Your task to perform on an android device: Open Chrome and go to the settings page Image 0: 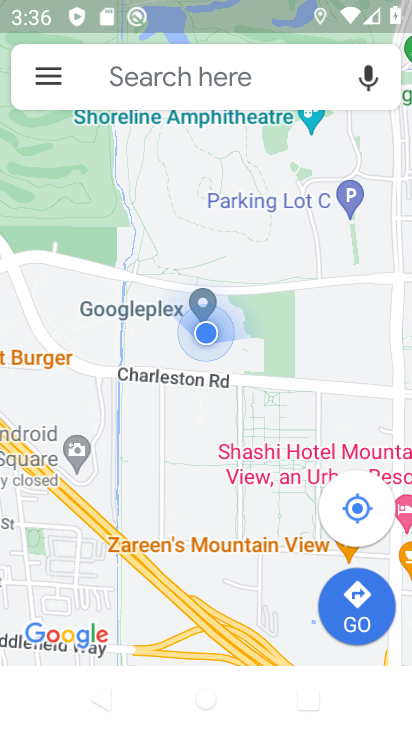
Step 0: press home button
Your task to perform on an android device: Open Chrome and go to the settings page Image 1: 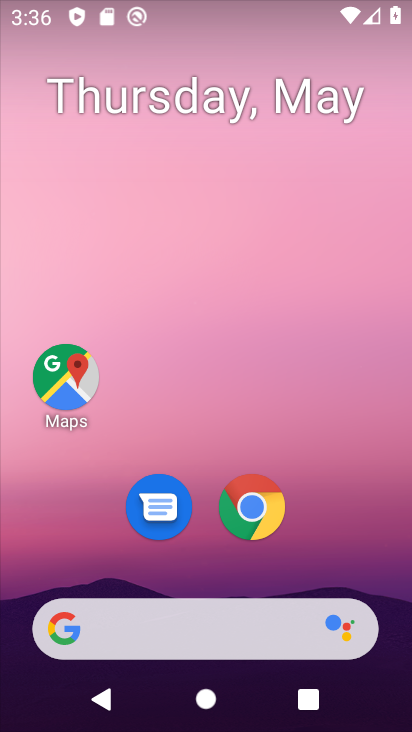
Step 1: click (250, 508)
Your task to perform on an android device: Open Chrome and go to the settings page Image 2: 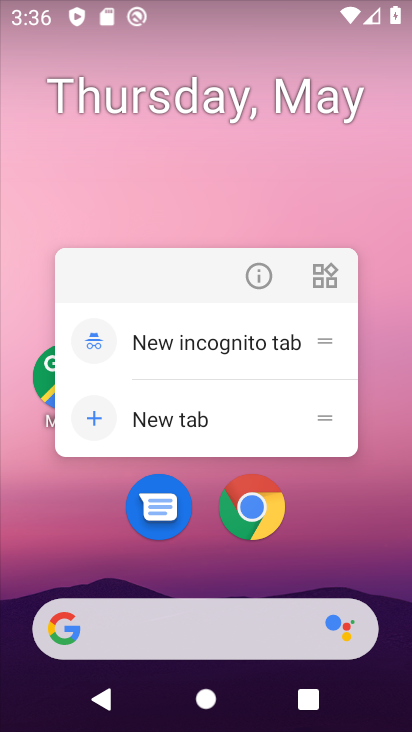
Step 2: click (249, 506)
Your task to perform on an android device: Open Chrome and go to the settings page Image 3: 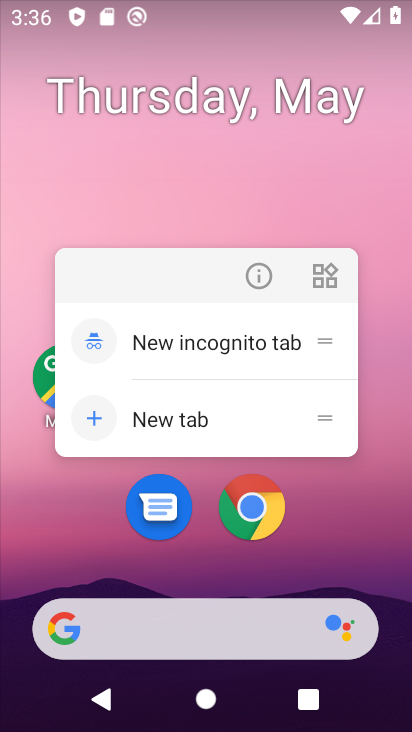
Step 3: click (249, 505)
Your task to perform on an android device: Open Chrome and go to the settings page Image 4: 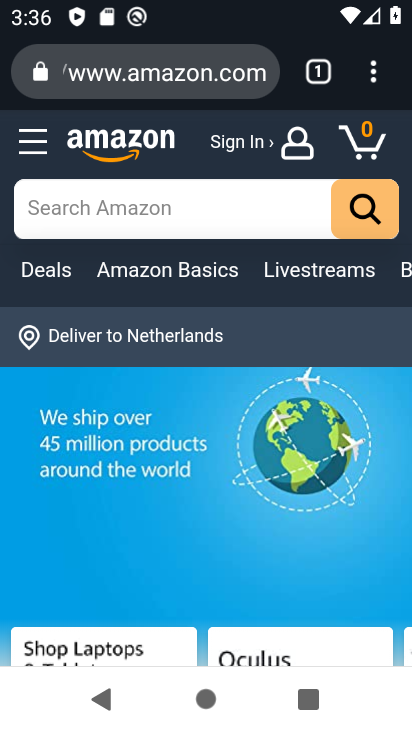
Step 4: click (380, 70)
Your task to perform on an android device: Open Chrome and go to the settings page Image 5: 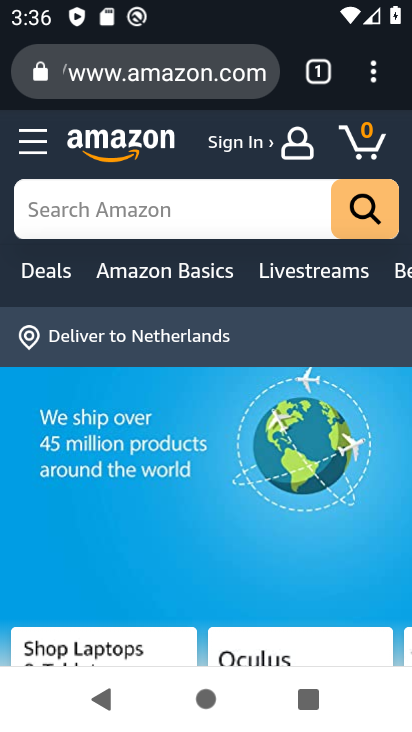
Step 5: click (378, 74)
Your task to perform on an android device: Open Chrome and go to the settings page Image 6: 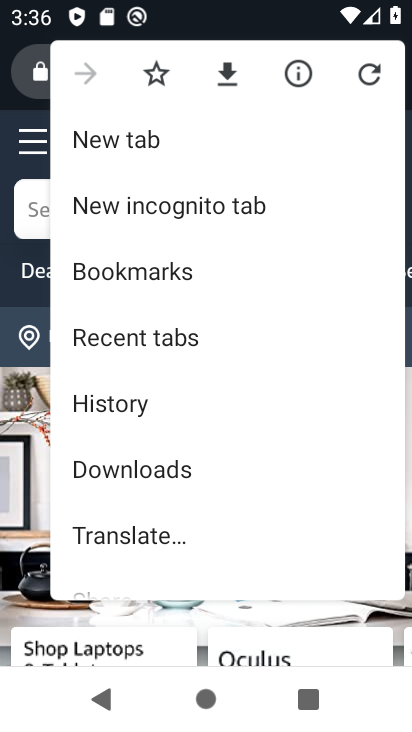
Step 6: drag from (181, 522) to (180, 245)
Your task to perform on an android device: Open Chrome and go to the settings page Image 7: 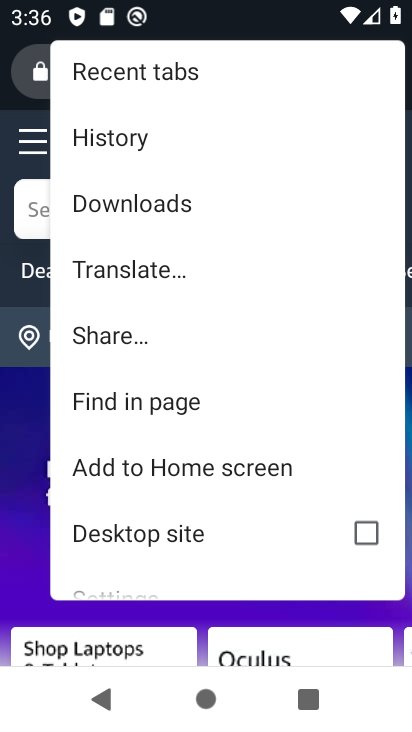
Step 7: drag from (192, 539) to (177, 274)
Your task to perform on an android device: Open Chrome and go to the settings page Image 8: 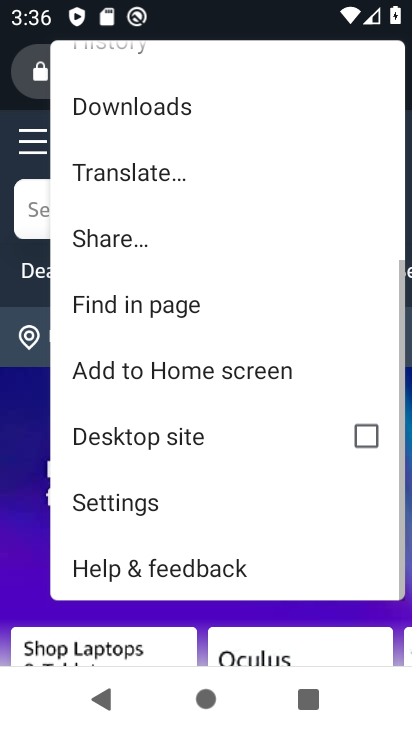
Step 8: click (110, 492)
Your task to perform on an android device: Open Chrome and go to the settings page Image 9: 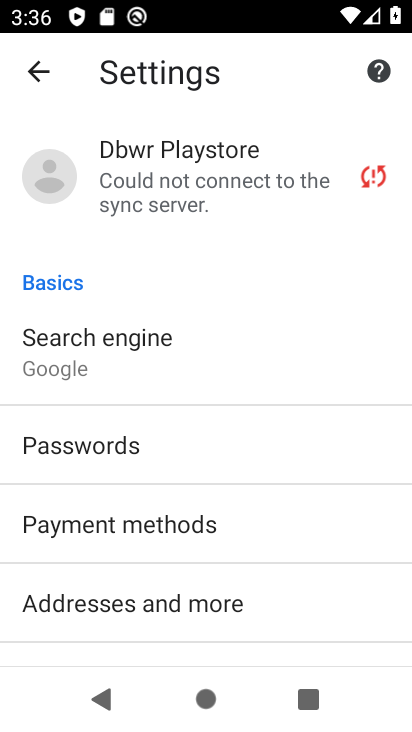
Step 9: task complete